Your task to perform on an android device: Open maps Image 0: 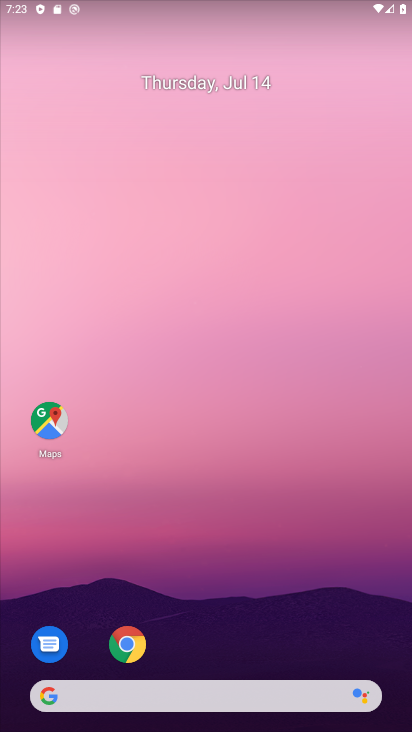
Step 0: click (57, 421)
Your task to perform on an android device: Open maps Image 1: 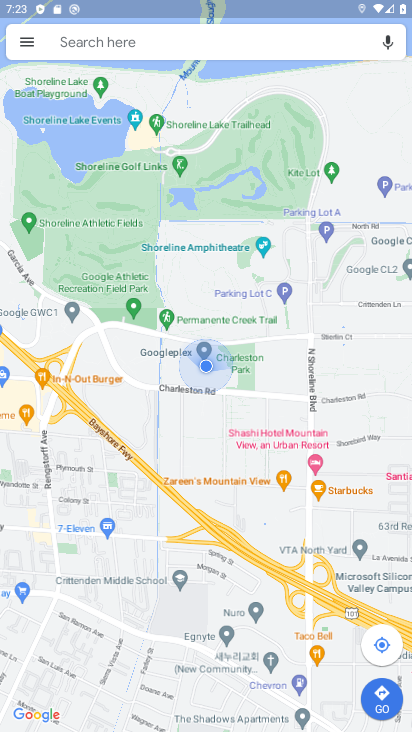
Step 1: task complete